Your task to perform on an android device: see tabs open on other devices in the chrome app Image 0: 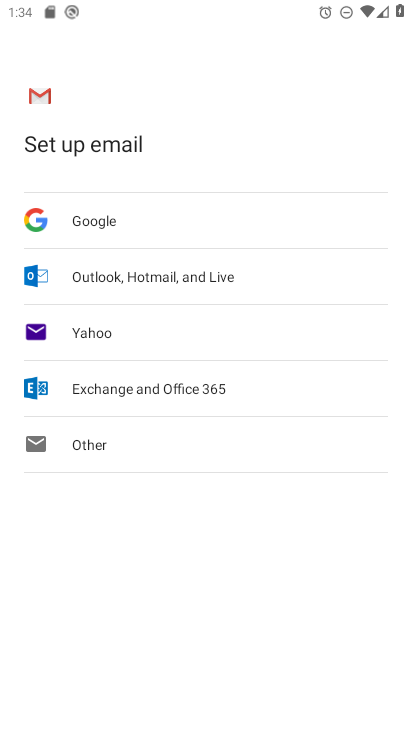
Step 0: press home button
Your task to perform on an android device: see tabs open on other devices in the chrome app Image 1: 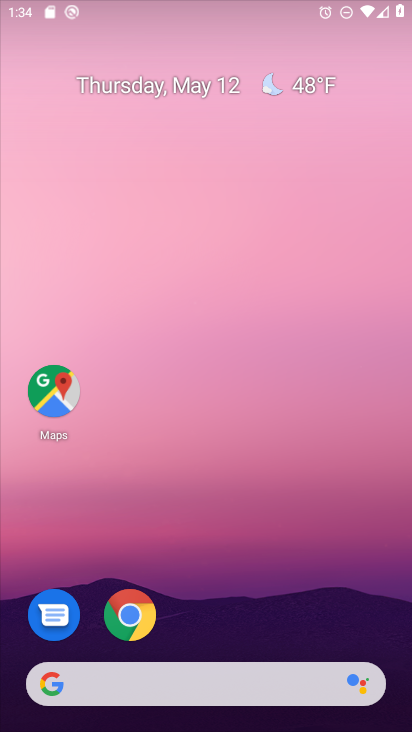
Step 1: drag from (343, 711) to (359, 22)
Your task to perform on an android device: see tabs open on other devices in the chrome app Image 2: 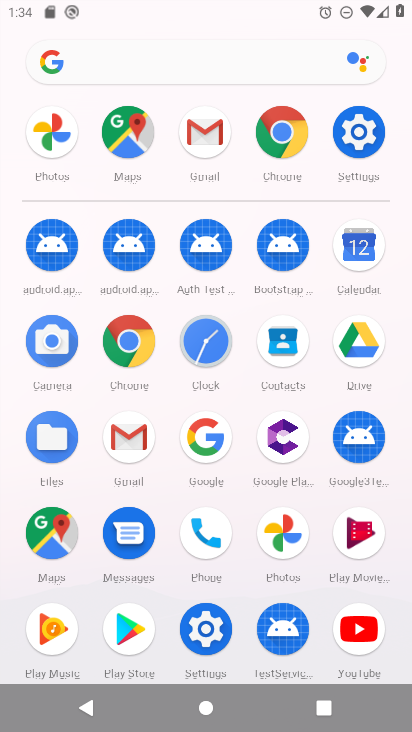
Step 2: click (121, 357)
Your task to perform on an android device: see tabs open on other devices in the chrome app Image 3: 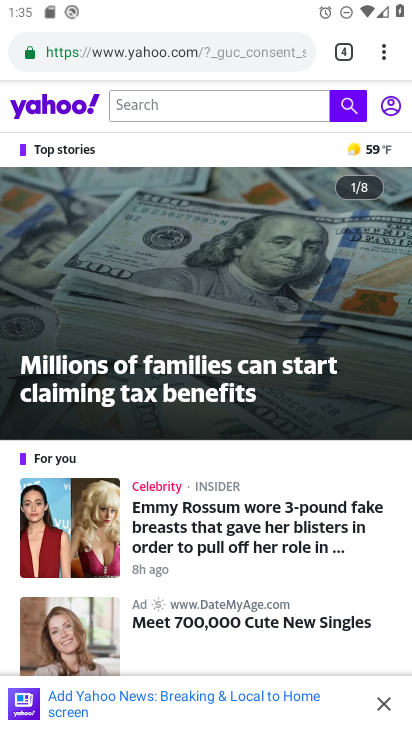
Step 3: click (379, 42)
Your task to perform on an android device: see tabs open on other devices in the chrome app Image 4: 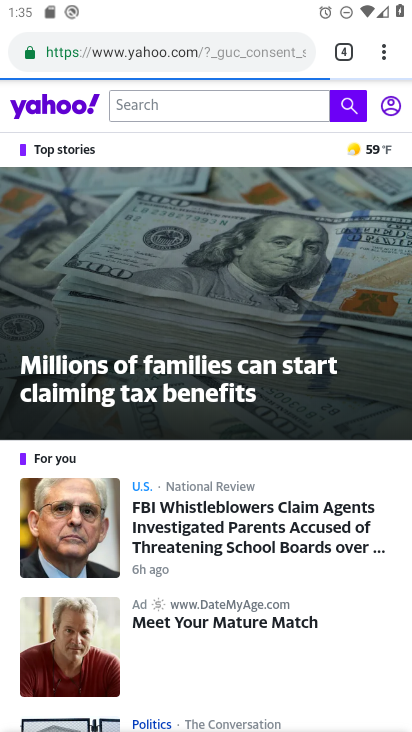
Step 4: task complete